Your task to perform on an android device: turn off airplane mode Image 0: 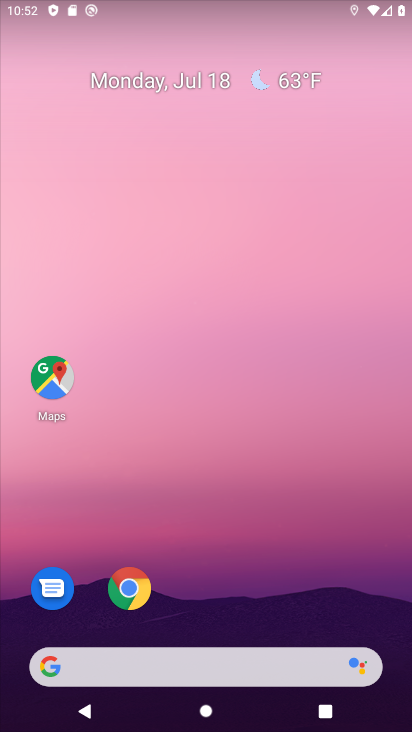
Step 0: drag from (178, 525) to (139, 76)
Your task to perform on an android device: turn off airplane mode Image 1: 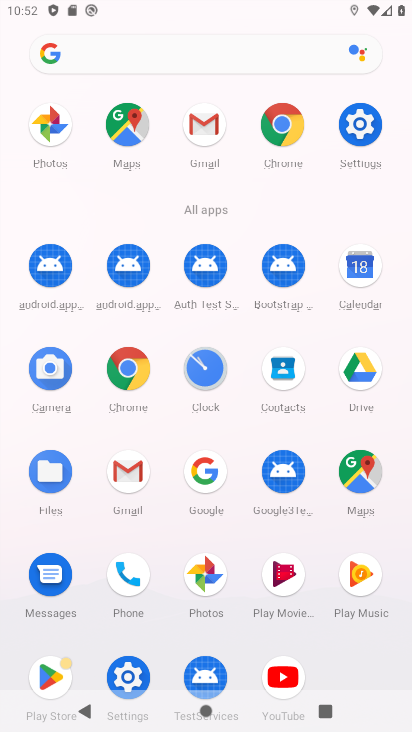
Step 1: click (355, 129)
Your task to perform on an android device: turn off airplane mode Image 2: 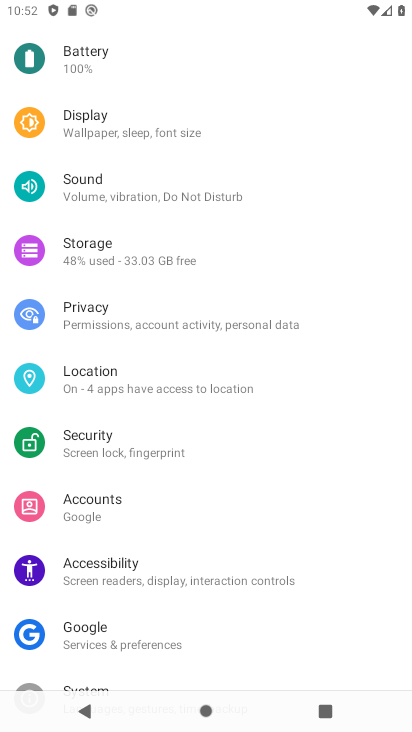
Step 2: drag from (96, 116) to (137, 608)
Your task to perform on an android device: turn off airplane mode Image 3: 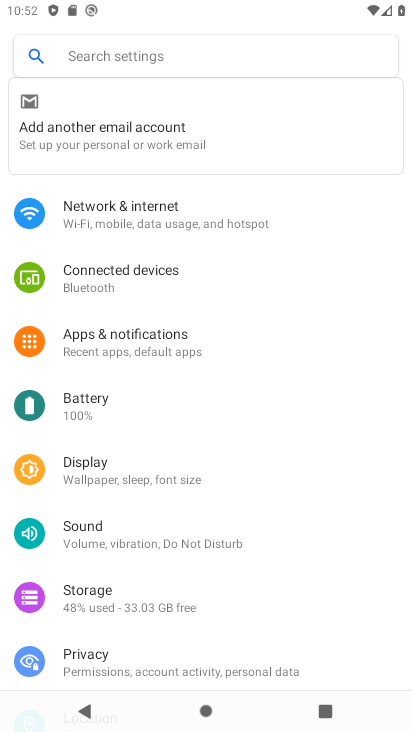
Step 3: click (135, 207)
Your task to perform on an android device: turn off airplane mode Image 4: 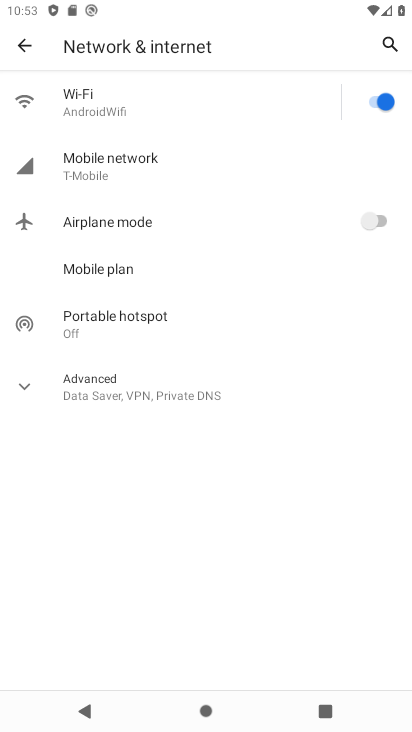
Step 4: task complete